Your task to perform on an android device: Turn on the flashlight Image 0: 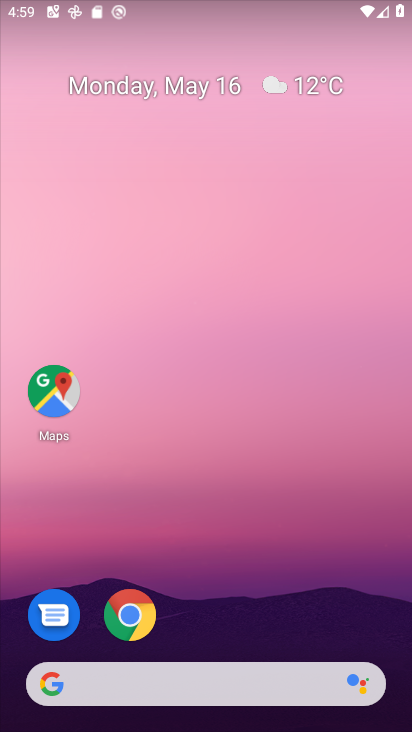
Step 0: drag from (234, 571) to (246, 92)
Your task to perform on an android device: Turn on the flashlight Image 1: 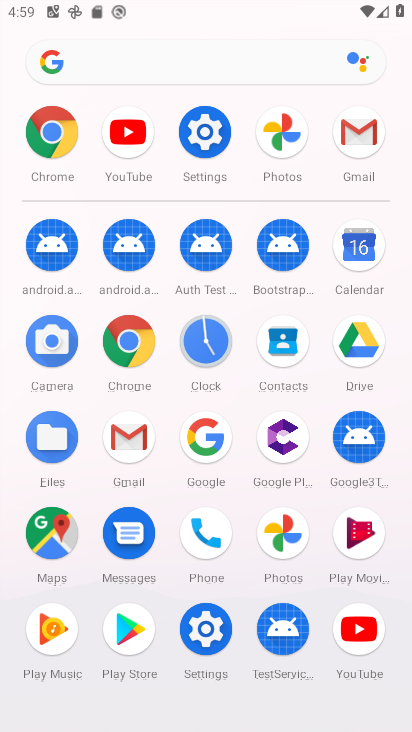
Step 1: click (209, 145)
Your task to perform on an android device: Turn on the flashlight Image 2: 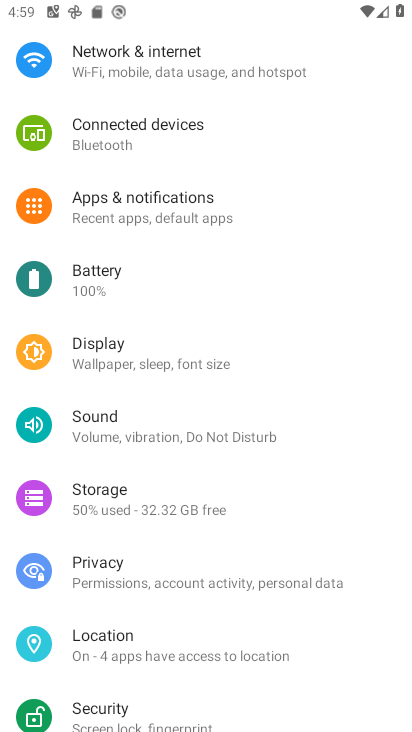
Step 2: task complete